Your task to perform on an android device: turn off improve location accuracy Image 0: 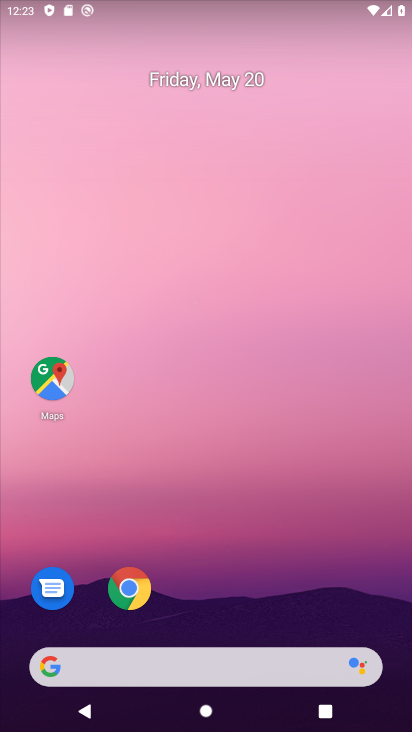
Step 0: drag from (375, 620) to (302, 143)
Your task to perform on an android device: turn off improve location accuracy Image 1: 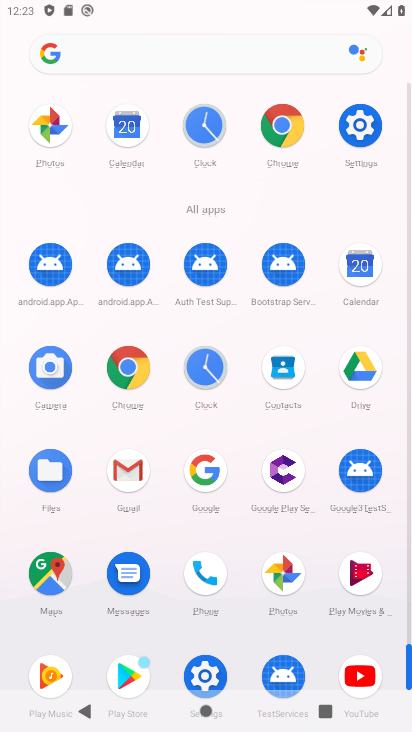
Step 1: click (199, 671)
Your task to perform on an android device: turn off improve location accuracy Image 2: 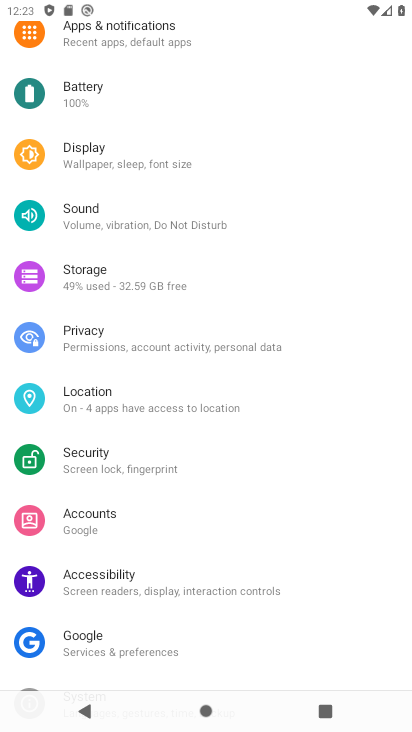
Step 2: click (92, 395)
Your task to perform on an android device: turn off improve location accuracy Image 3: 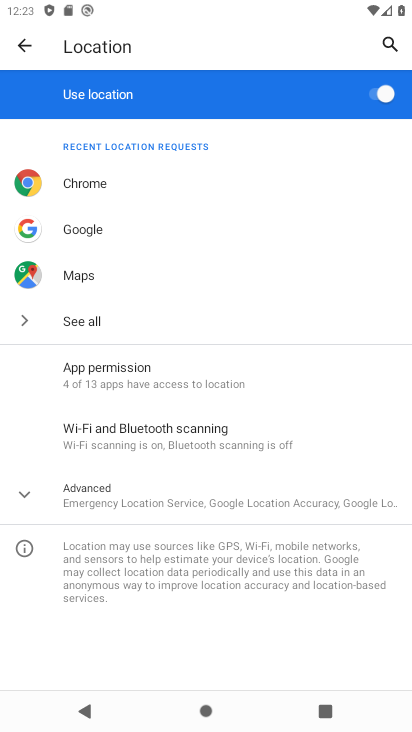
Step 3: click (32, 493)
Your task to perform on an android device: turn off improve location accuracy Image 4: 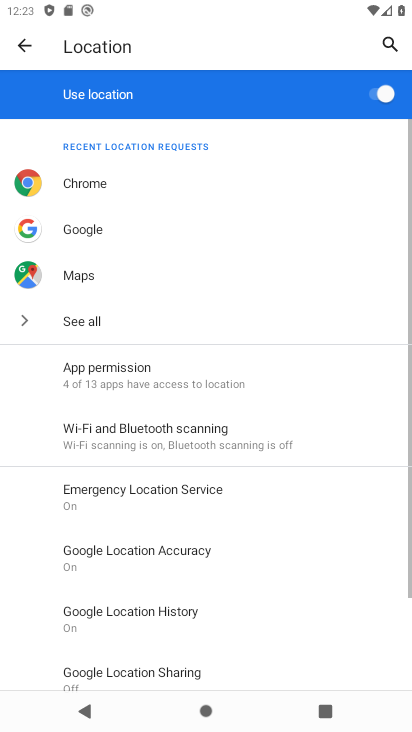
Step 4: drag from (232, 647) to (237, 413)
Your task to perform on an android device: turn off improve location accuracy Image 5: 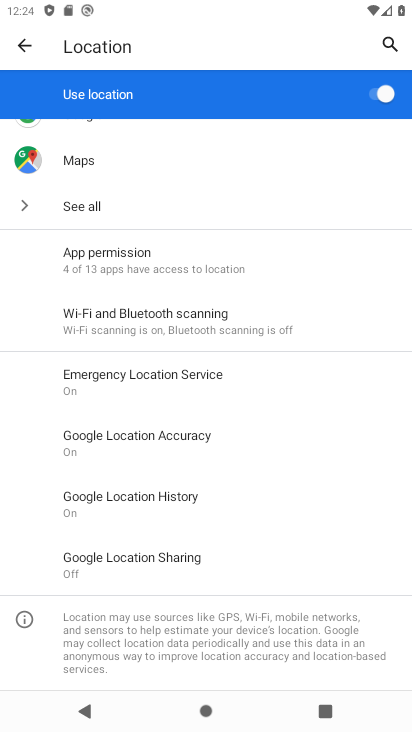
Step 5: click (124, 440)
Your task to perform on an android device: turn off improve location accuracy Image 6: 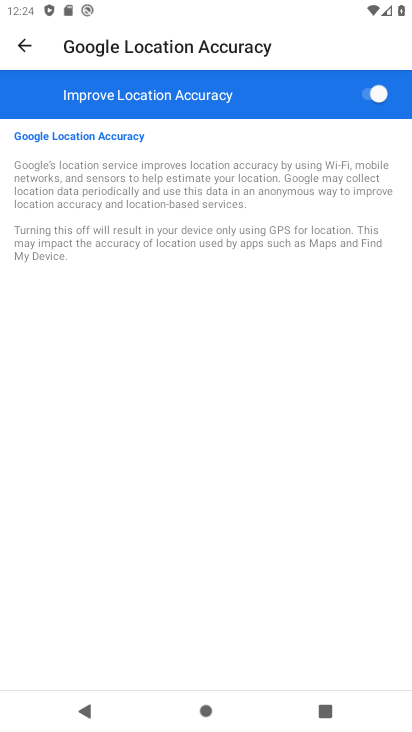
Step 6: click (363, 93)
Your task to perform on an android device: turn off improve location accuracy Image 7: 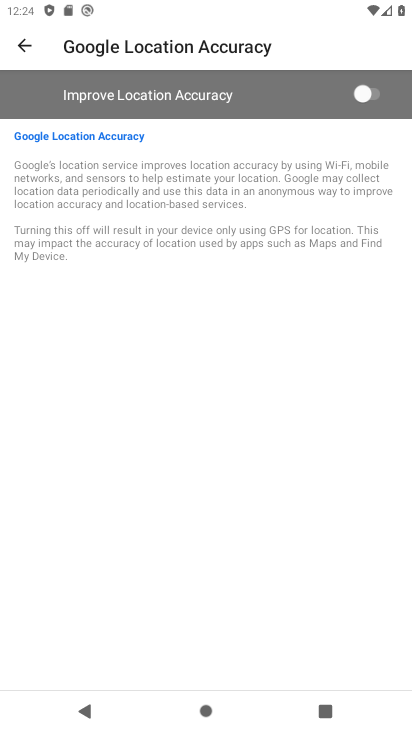
Step 7: task complete